Your task to perform on an android device: Open the web browser Image 0: 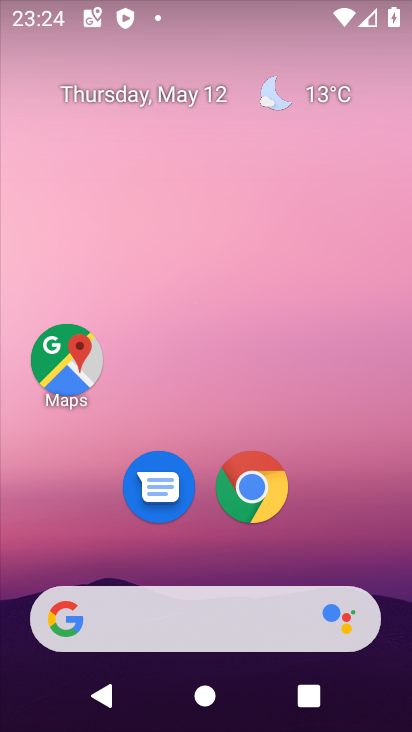
Step 0: click (232, 623)
Your task to perform on an android device: Open the web browser Image 1: 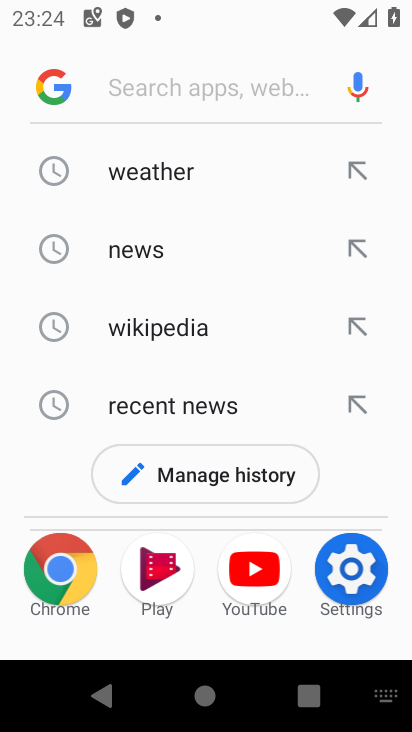
Step 1: task complete